Your task to perform on an android device: Go to ESPN.com Image 0: 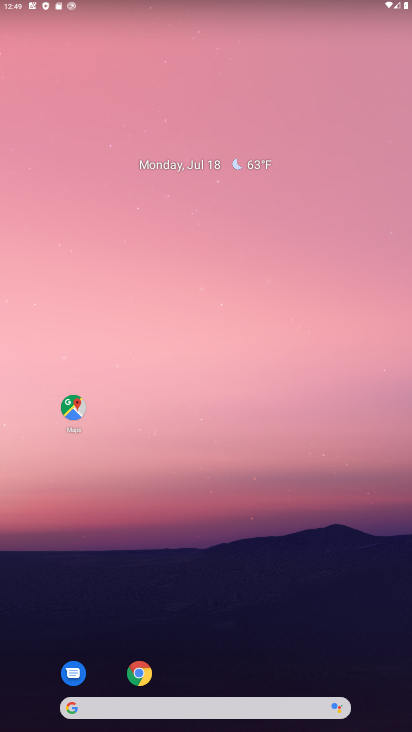
Step 0: drag from (215, 681) to (215, 69)
Your task to perform on an android device: Go to ESPN.com Image 1: 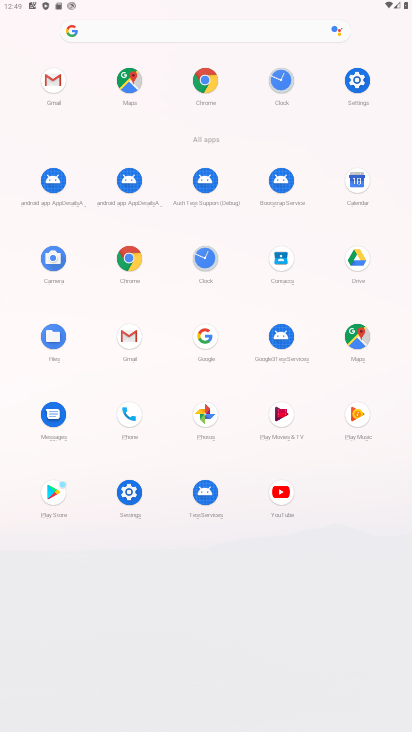
Step 1: click (199, 83)
Your task to perform on an android device: Go to ESPN.com Image 2: 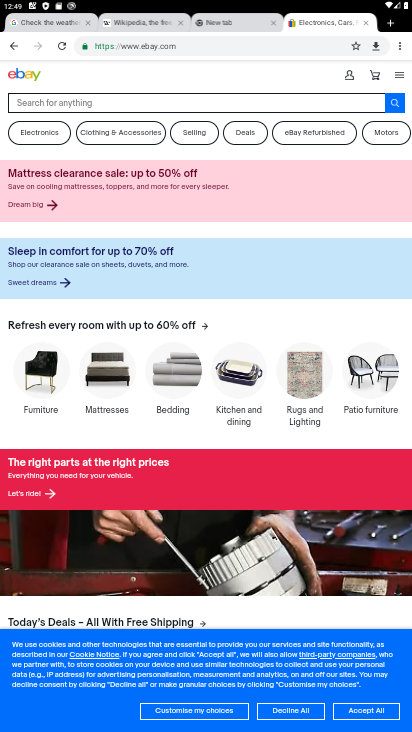
Step 2: click (403, 41)
Your task to perform on an android device: Go to ESPN.com Image 3: 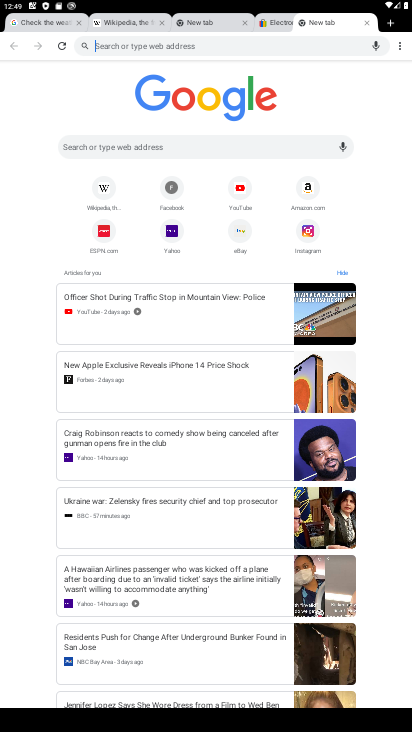
Step 3: click (109, 233)
Your task to perform on an android device: Go to ESPN.com Image 4: 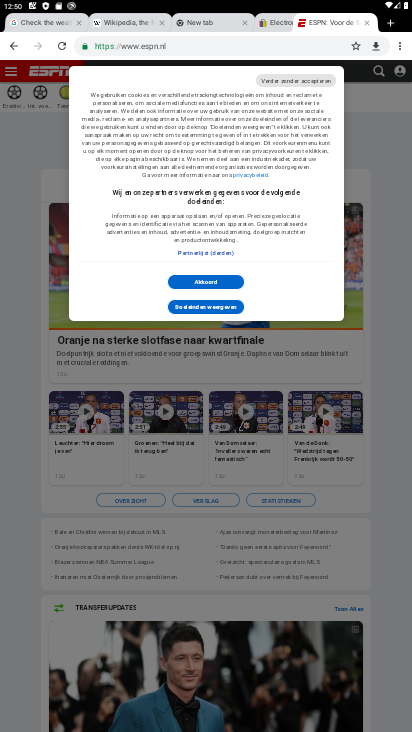
Step 4: task complete